Your task to perform on an android device: Open a new window in Chrome Image 0: 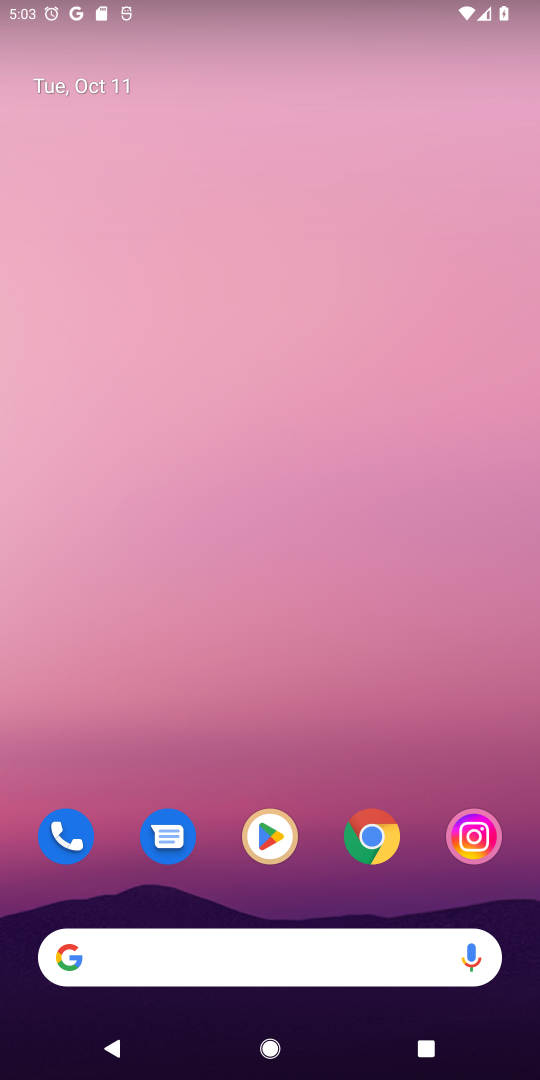
Step 0: click (378, 825)
Your task to perform on an android device: Open a new window in Chrome Image 1: 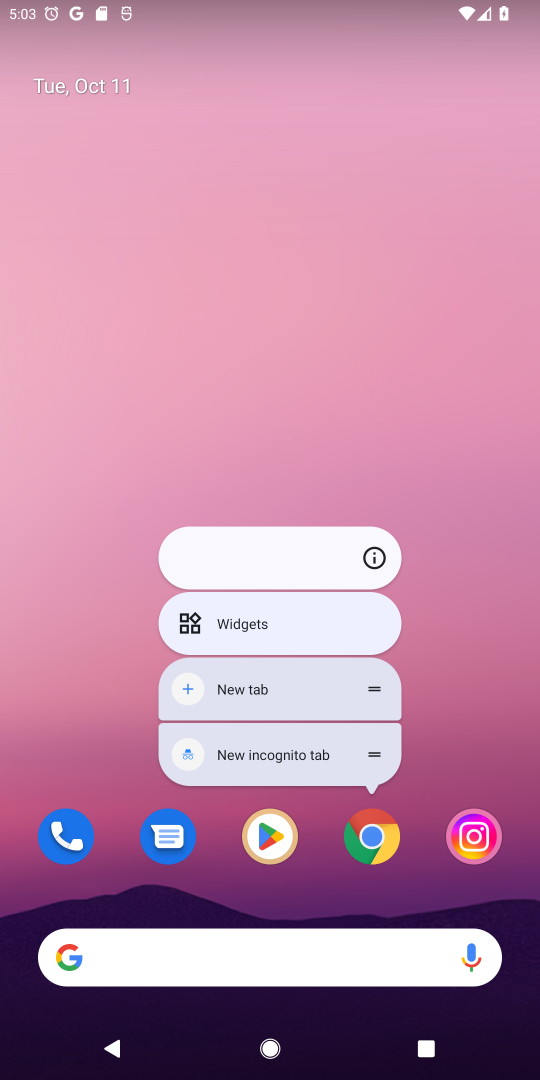
Step 1: click (371, 829)
Your task to perform on an android device: Open a new window in Chrome Image 2: 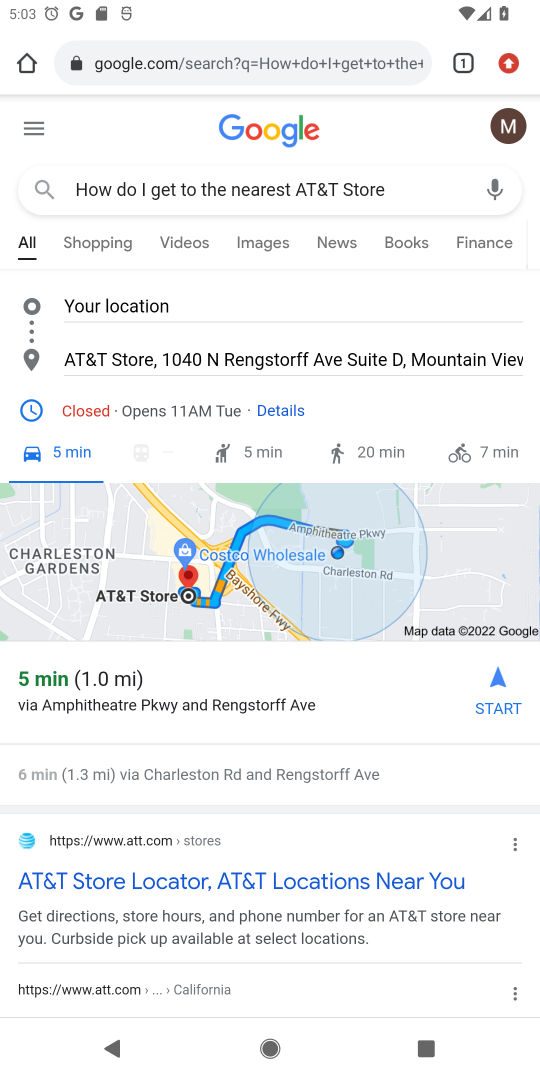
Step 2: click (467, 76)
Your task to perform on an android device: Open a new window in Chrome Image 3: 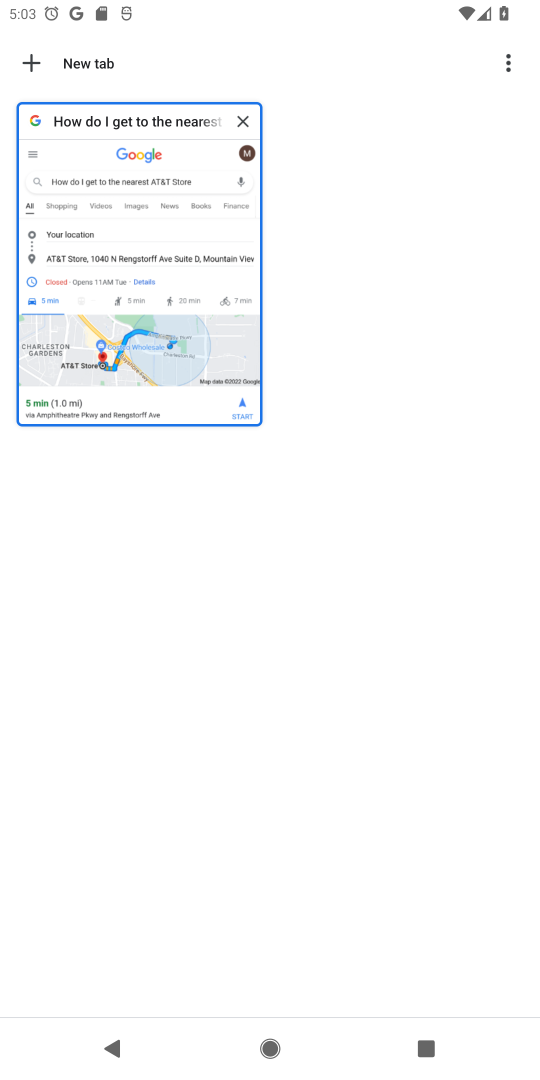
Step 3: click (50, 56)
Your task to perform on an android device: Open a new window in Chrome Image 4: 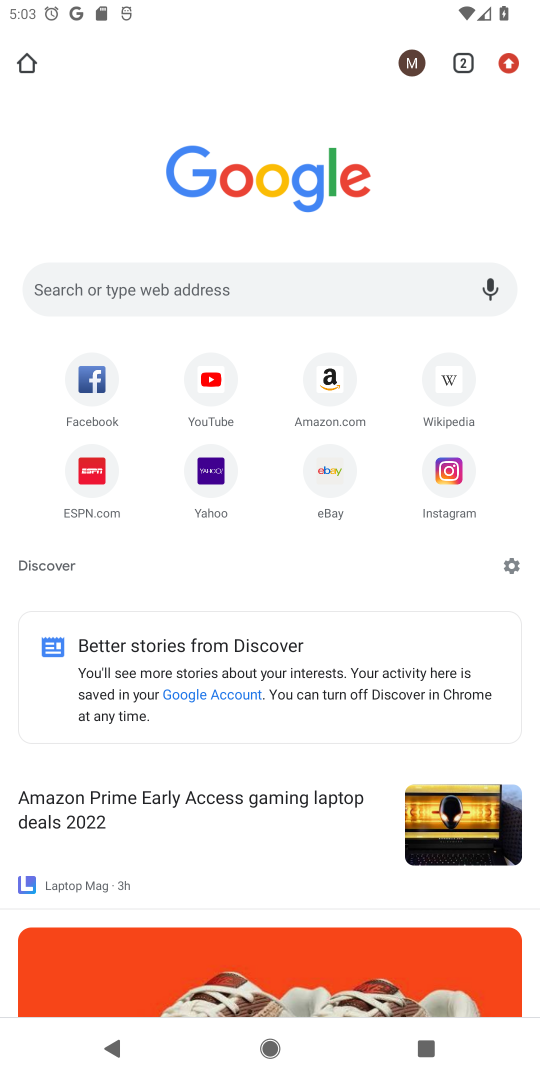
Step 4: task complete